Your task to perform on an android device: change alarm snooze length Image 0: 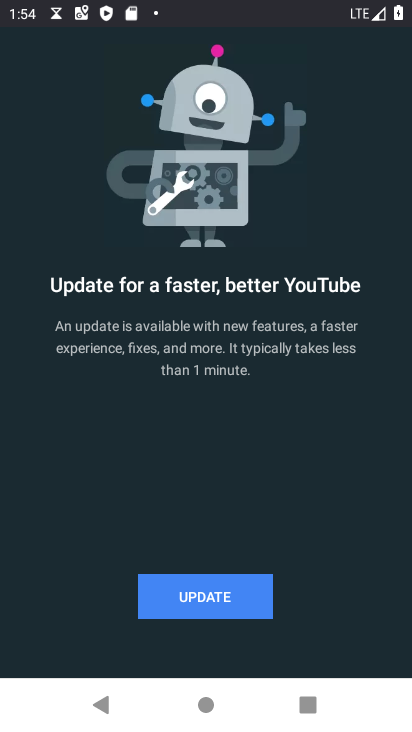
Step 0: press home button
Your task to perform on an android device: change alarm snooze length Image 1: 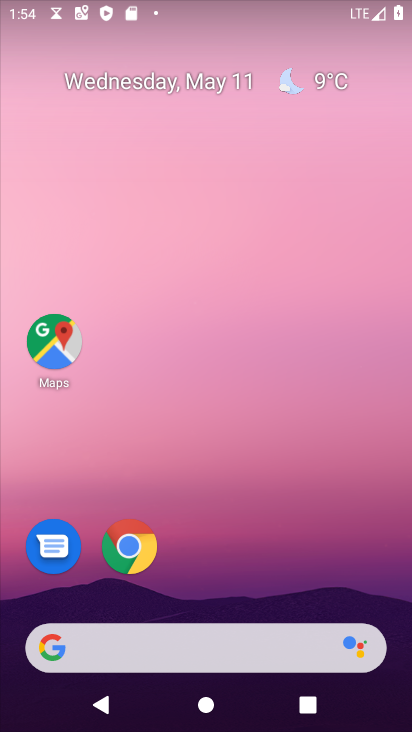
Step 1: drag from (210, 564) to (406, 595)
Your task to perform on an android device: change alarm snooze length Image 2: 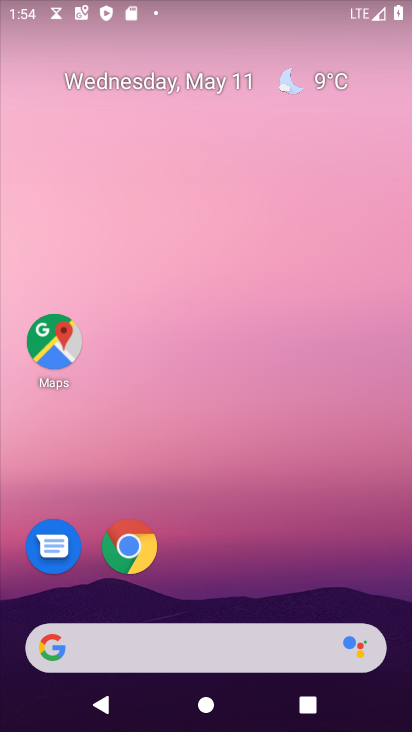
Step 2: drag from (259, 547) to (232, 80)
Your task to perform on an android device: change alarm snooze length Image 3: 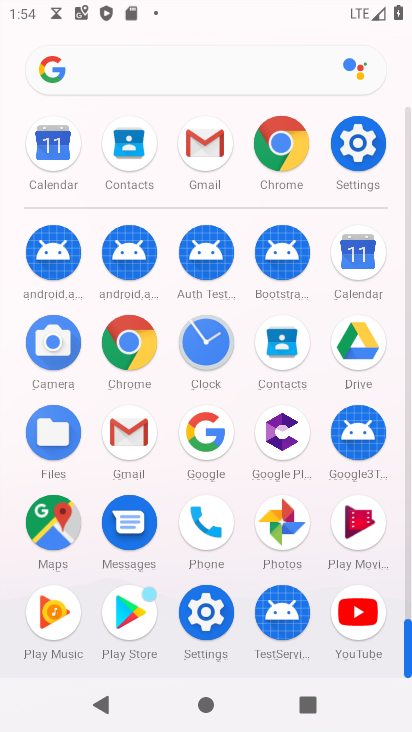
Step 3: click (206, 344)
Your task to perform on an android device: change alarm snooze length Image 4: 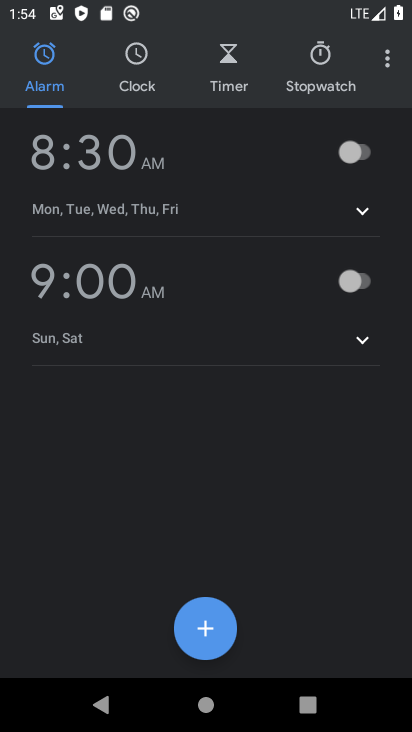
Step 4: click (384, 60)
Your task to perform on an android device: change alarm snooze length Image 5: 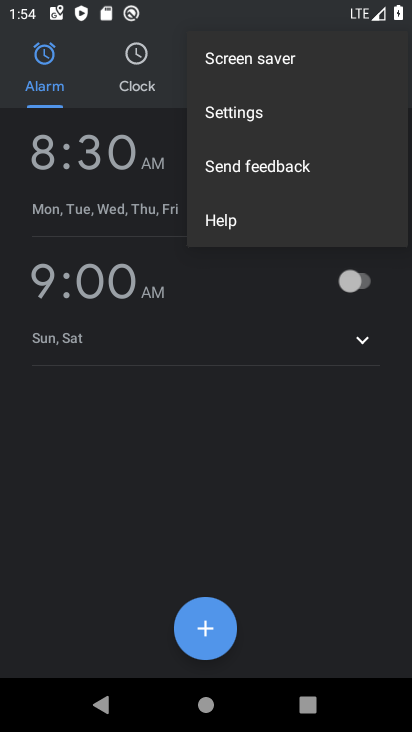
Step 5: click (264, 116)
Your task to perform on an android device: change alarm snooze length Image 6: 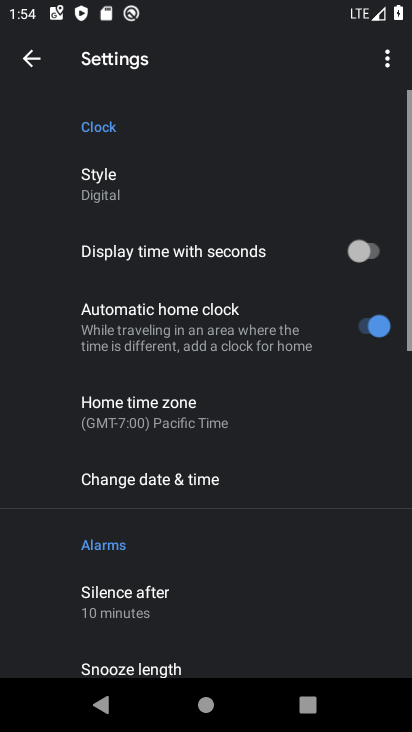
Step 6: drag from (218, 507) to (249, 182)
Your task to perform on an android device: change alarm snooze length Image 7: 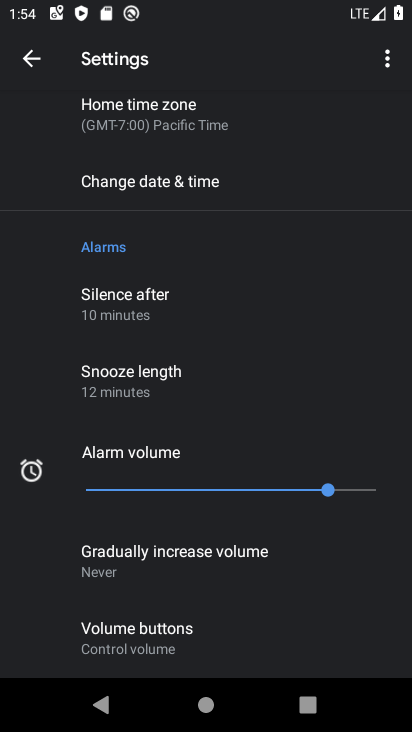
Step 7: click (170, 378)
Your task to perform on an android device: change alarm snooze length Image 8: 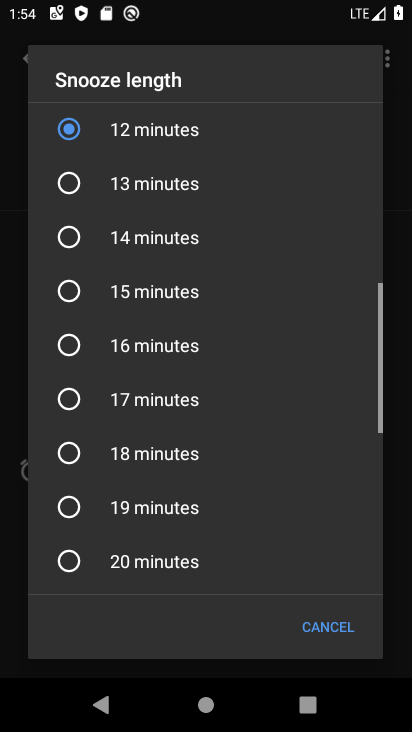
Step 8: click (145, 221)
Your task to perform on an android device: change alarm snooze length Image 9: 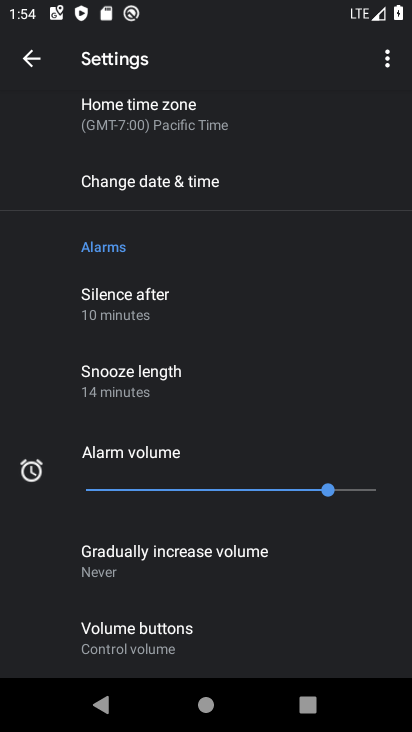
Step 9: task complete